Your task to perform on an android device: stop showing notifications on the lock screen Image 0: 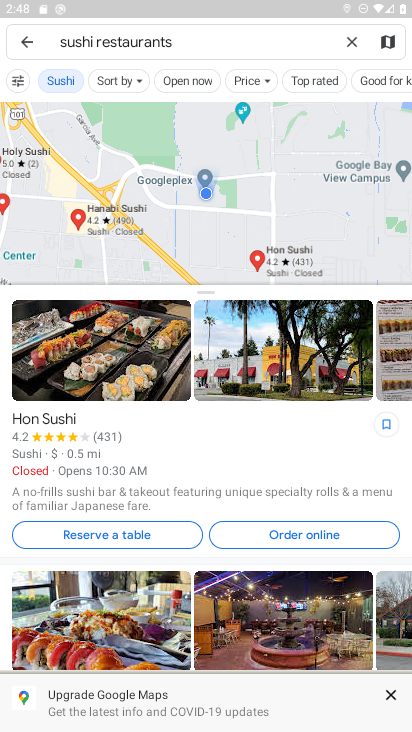
Step 0: press home button
Your task to perform on an android device: stop showing notifications on the lock screen Image 1: 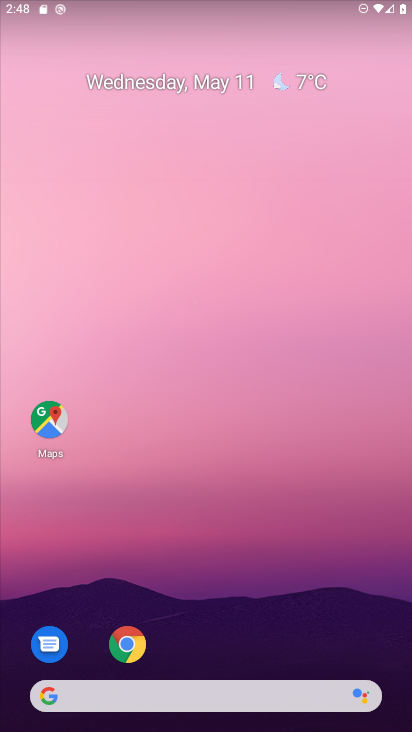
Step 1: drag from (180, 504) to (179, 0)
Your task to perform on an android device: stop showing notifications on the lock screen Image 2: 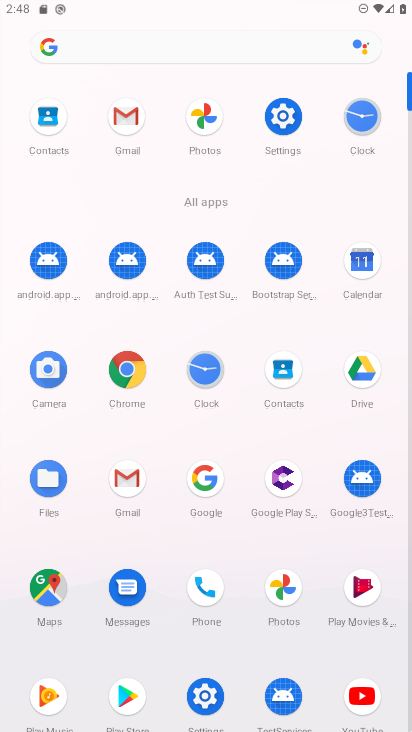
Step 2: drag from (267, 70) to (285, 169)
Your task to perform on an android device: stop showing notifications on the lock screen Image 3: 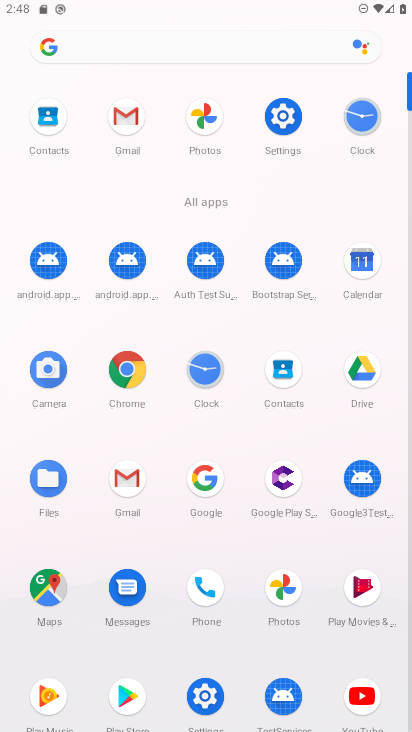
Step 3: click (276, 124)
Your task to perform on an android device: stop showing notifications on the lock screen Image 4: 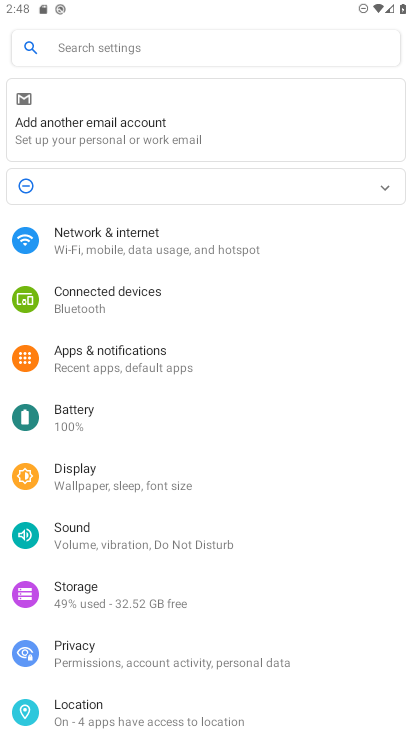
Step 4: click (156, 364)
Your task to perform on an android device: stop showing notifications on the lock screen Image 5: 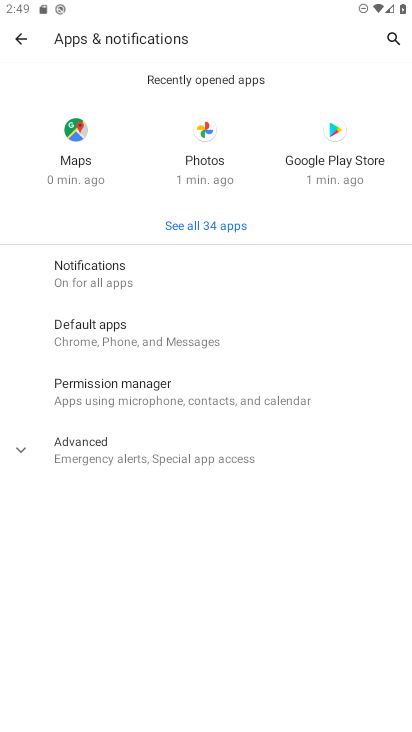
Step 5: click (117, 278)
Your task to perform on an android device: stop showing notifications on the lock screen Image 6: 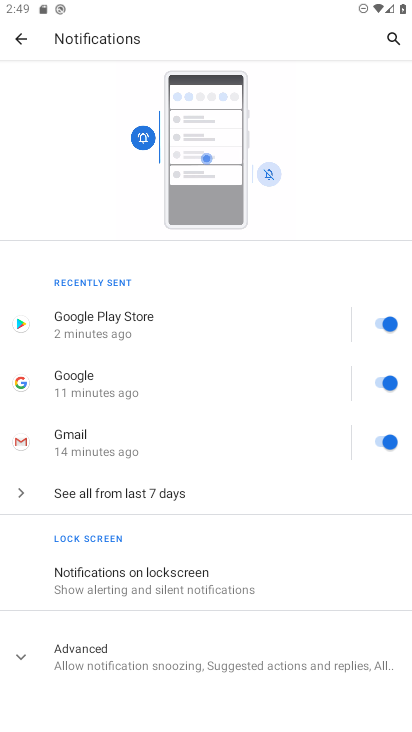
Step 6: click (144, 651)
Your task to perform on an android device: stop showing notifications on the lock screen Image 7: 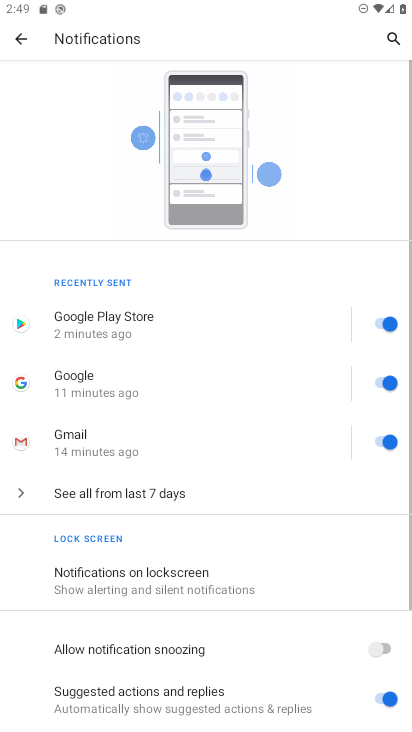
Step 7: click (146, 587)
Your task to perform on an android device: stop showing notifications on the lock screen Image 8: 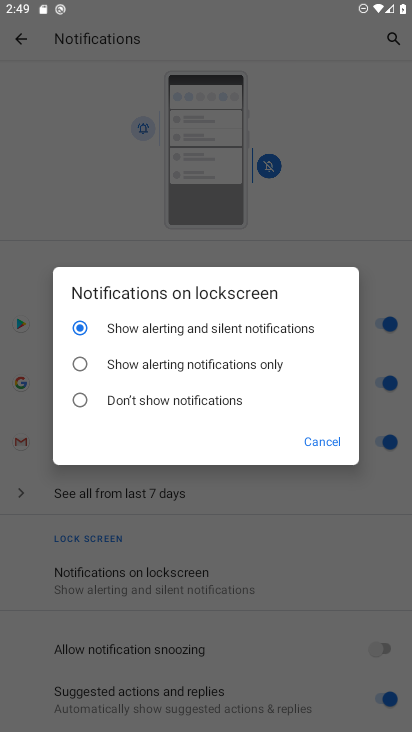
Step 8: click (77, 402)
Your task to perform on an android device: stop showing notifications on the lock screen Image 9: 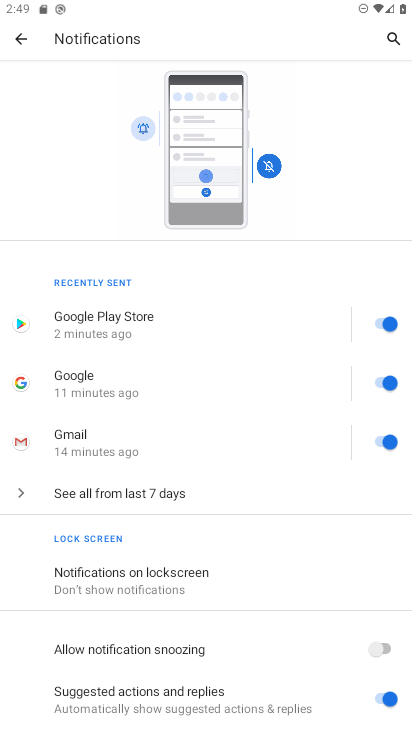
Step 9: task complete